Your task to perform on an android device: change keyboard looks Image 0: 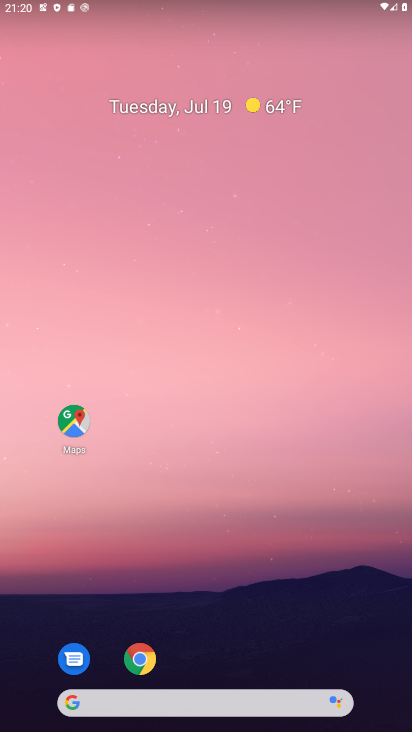
Step 0: drag from (217, 648) to (215, 21)
Your task to perform on an android device: change keyboard looks Image 1: 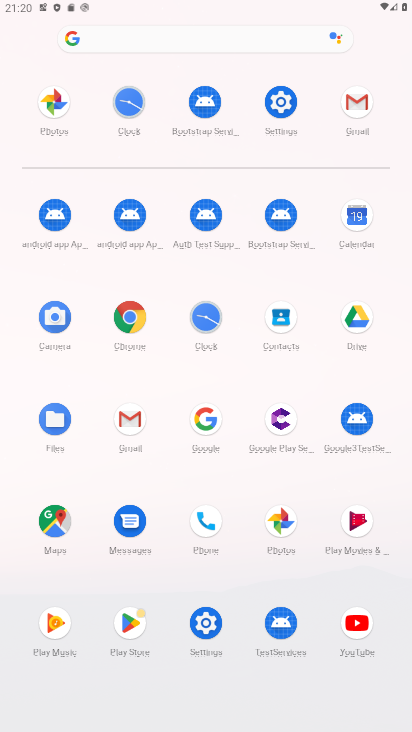
Step 1: click (266, 100)
Your task to perform on an android device: change keyboard looks Image 2: 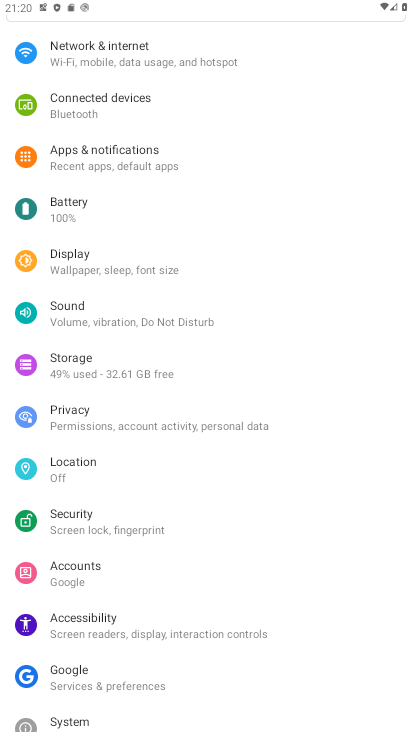
Step 2: drag from (98, 691) to (153, 161)
Your task to perform on an android device: change keyboard looks Image 3: 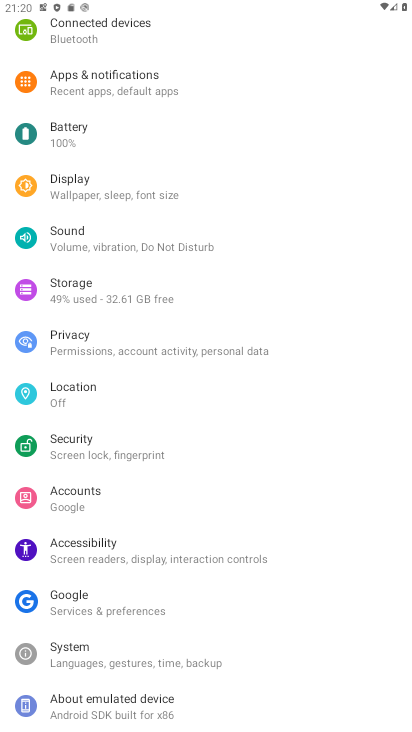
Step 3: click (73, 644)
Your task to perform on an android device: change keyboard looks Image 4: 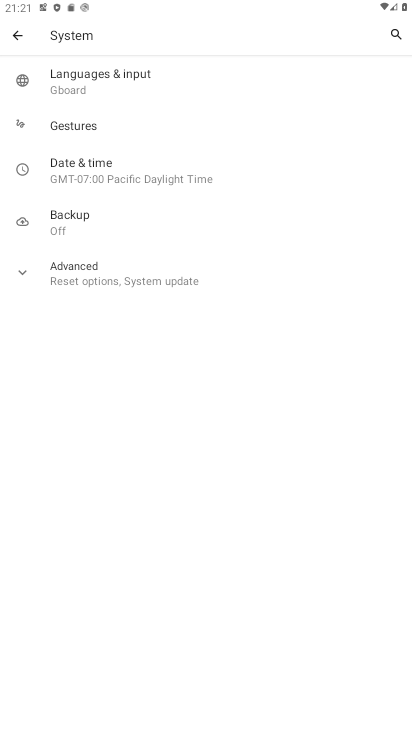
Step 4: click (133, 88)
Your task to perform on an android device: change keyboard looks Image 5: 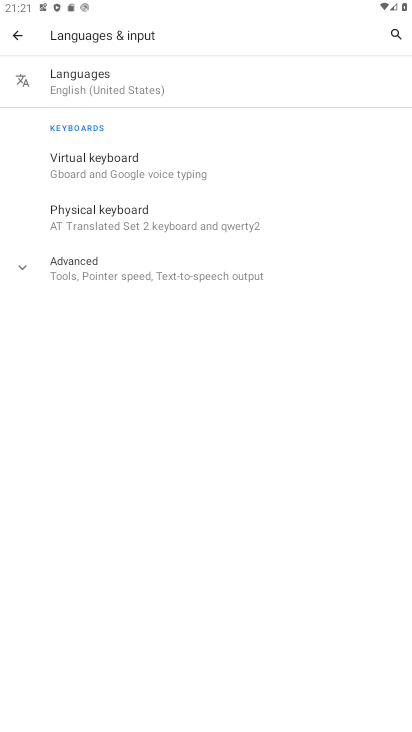
Step 5: click (139, 172)
Your task to perform on an android device: change keyboard looks Image 6: 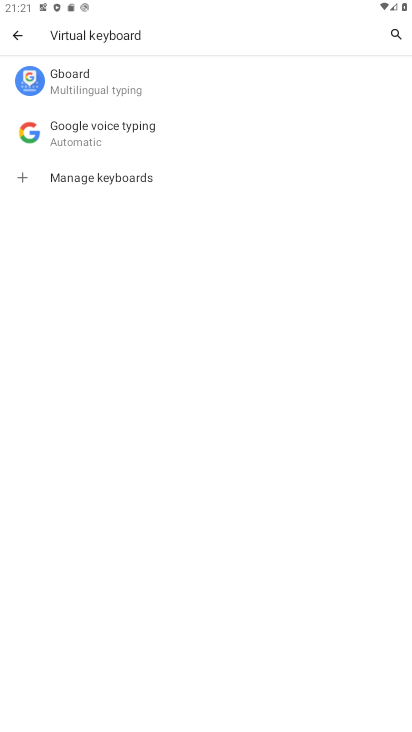
Step 6: click (149, 90)
Your task to perform on an android device: change keyboard looks Image 7: 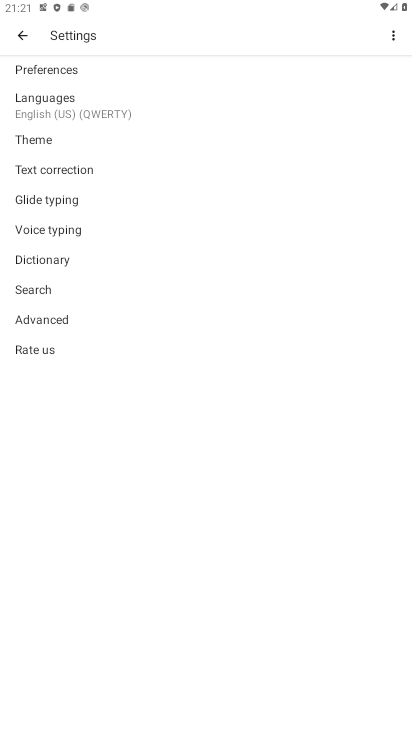
Step 7: click (25, 140)
Your task to perform on an android device: change keyboard looks Image 8: 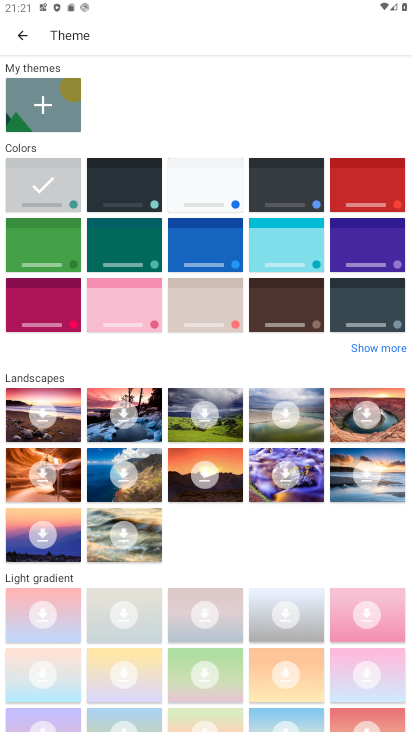
Step 8: click (123, 681)
Your task to perform on an android device: change keyboard looks Image 9: 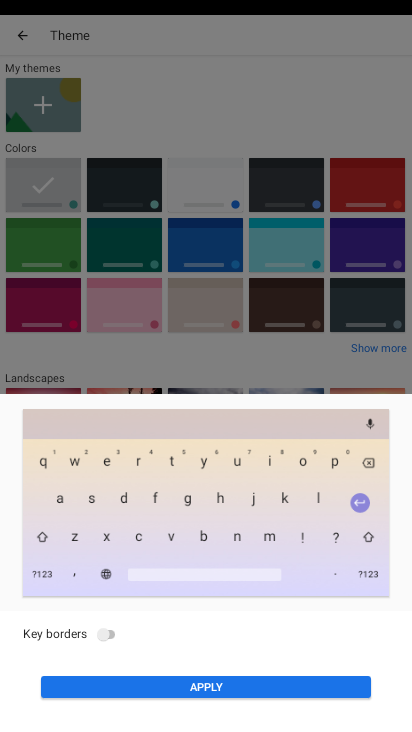
Step 9: click (145, 684)
Your task to perform on an android device: change keyboard looks Image 10: 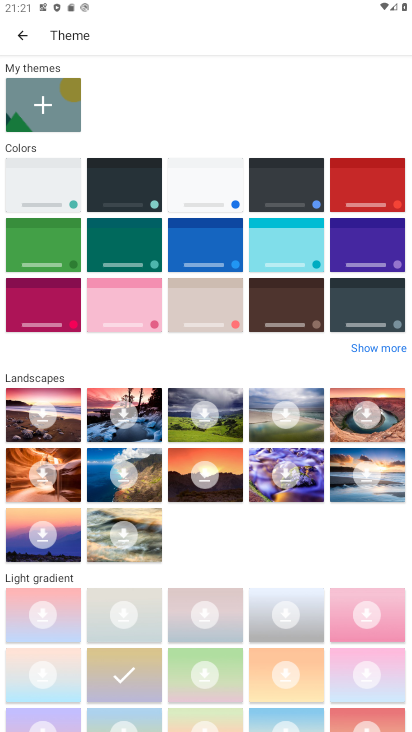
Step 10: task complete